Your task to perform on an android device: see sites visited before in the chrome app Image 0: 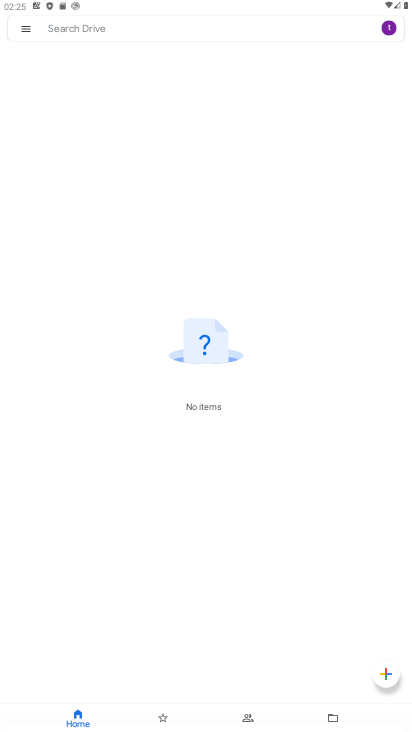
Step 0: press back button
Your task to perform on an android device: see sites visited before in the chrome app Image 1: 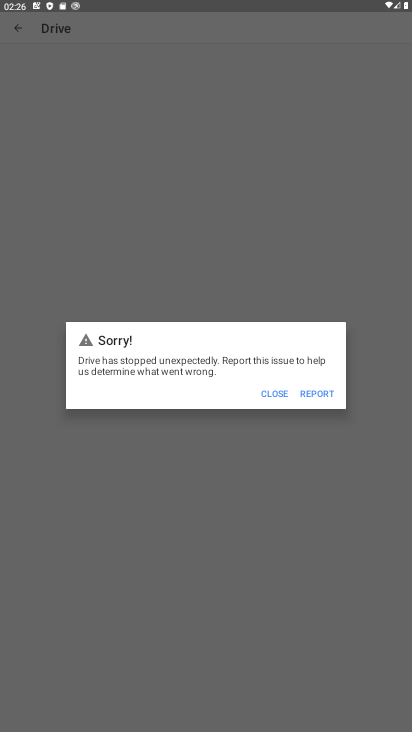
Step 1: press back button
Your task to perform on an android device: see sites visited before in the chrome app Image 2: 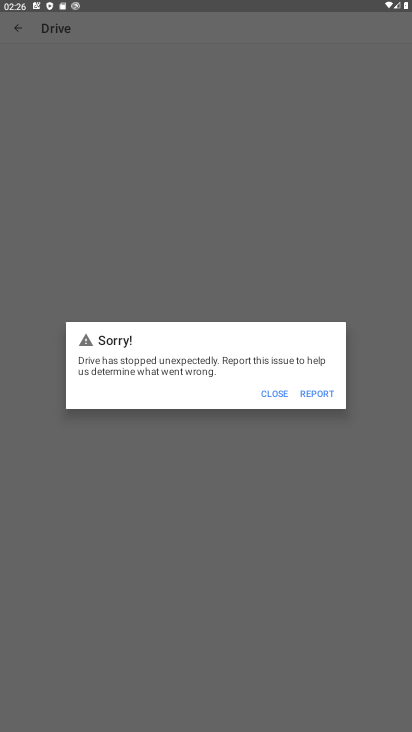
Step 2: press back button
Your task to perform on an android device: see sites visited before in the chrome app Image 3: 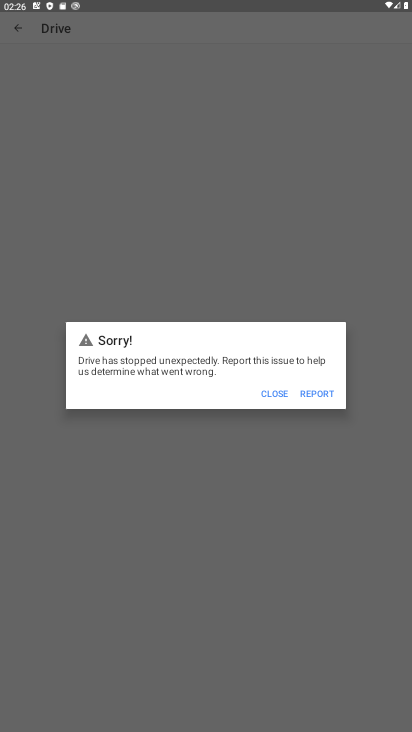
Step 3: press back button
Your task to perform on an android device: see sites visited before in the chrome app Image 4: 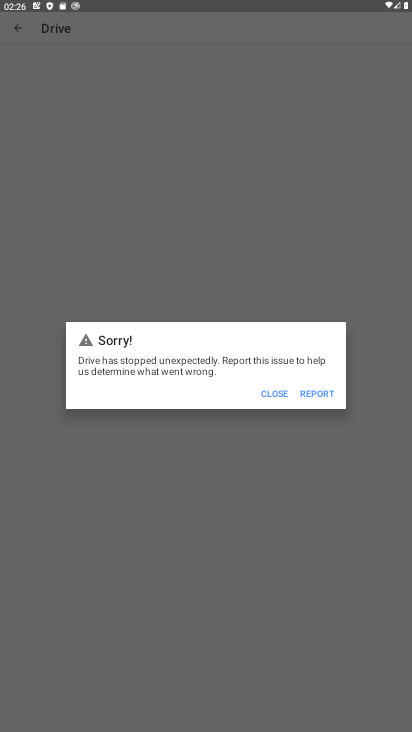
Step 4: press back button
Your task to perform on an android device: see sites visited before in the chrome app Image 5: 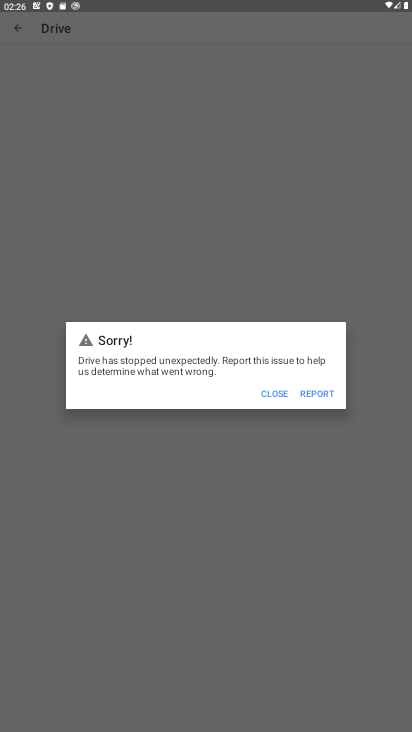
Step 5: click (260, 399)
Your task to perform on an android device: see sites visited before in the chrome app Image 6: 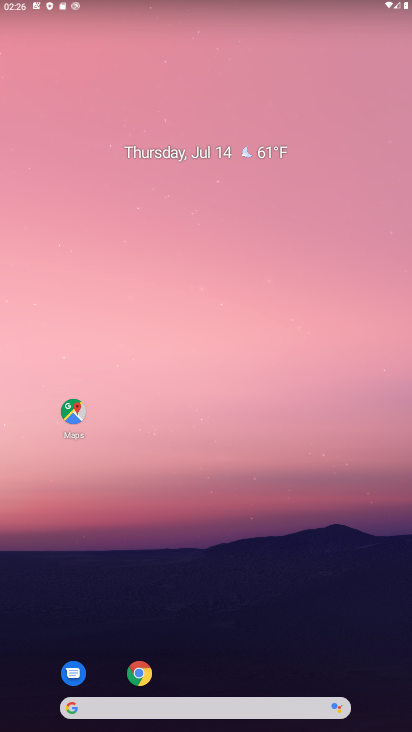
Step 6: drag from (210, 656) to (283, 272)
Your task to perform on an android device: see sites visited before in the chrome app Image 7: 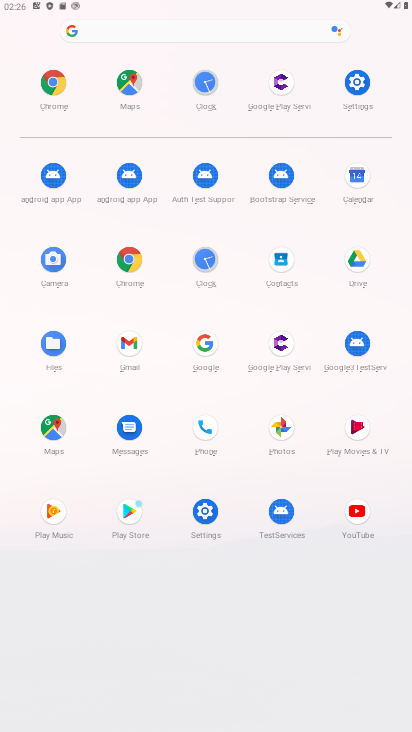
Step 7: click (136, 270)
Your task to perform on an android device: see sites visited before in the chrome app Image 8: 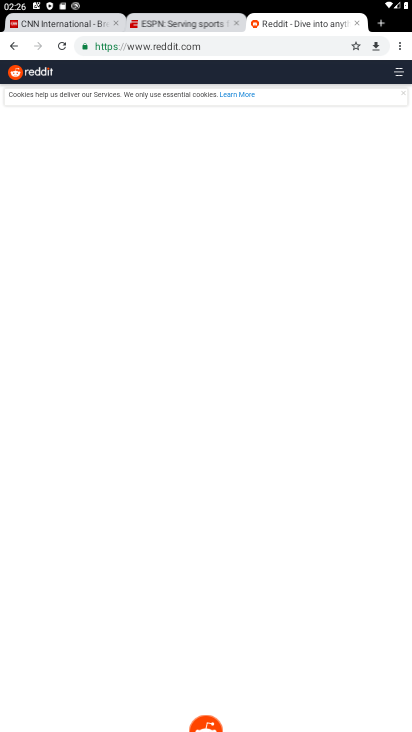
Step 8: click (395, 44)
Your task to perform on an android device: see sites visited before in the chrome app Image 9: 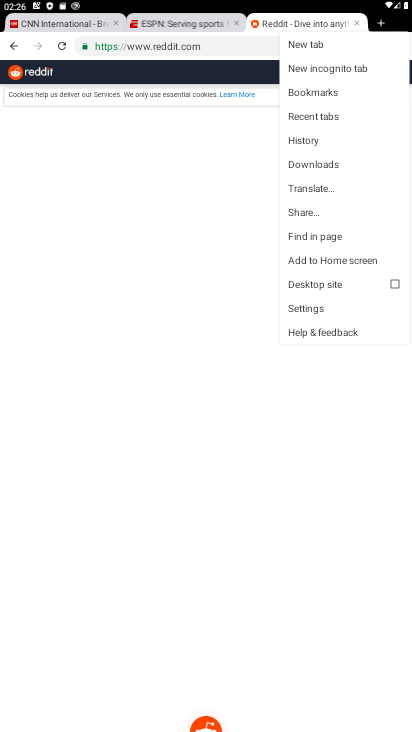
Step 9: click (309, 119)
Your task to perform on an android device: see sites visited before in the chrome app Image 10: 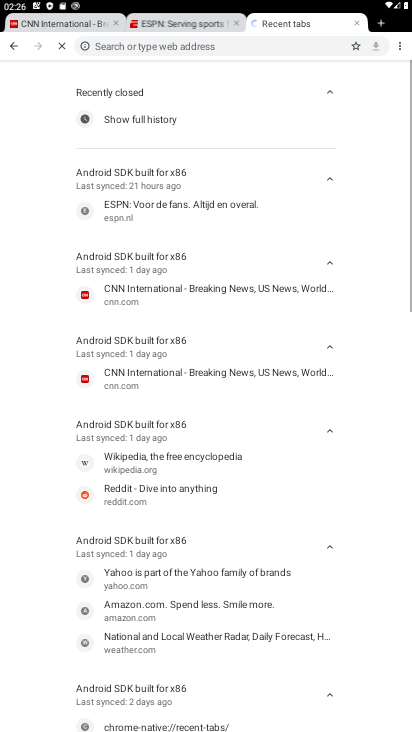
Step 10: task complete